Your task to perform on an android device: manage bookmarks in the chrome app Image 0: 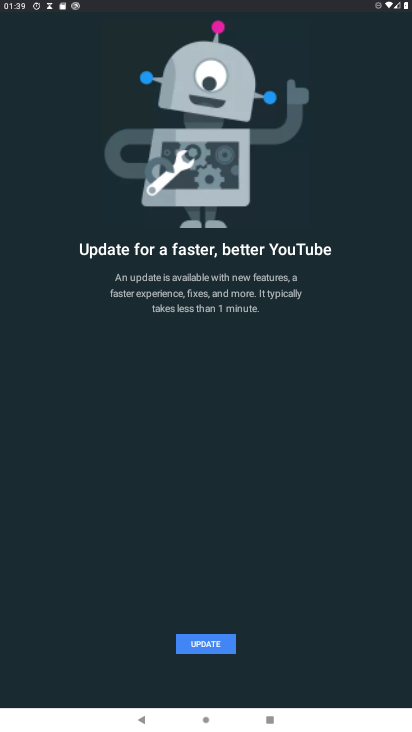
Step 0: press home button
Your task to perform on an android device: manage bookmarks in the chrome app Image 1: 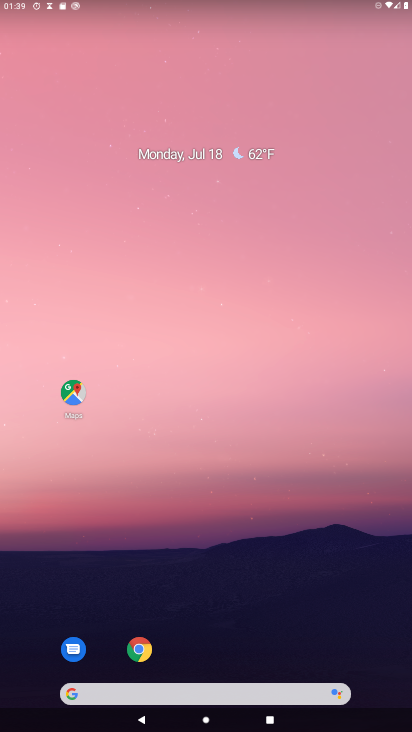
Step 1: click (146, 646)
Your task to perform on an android device: manage bookmarks in the chrome app Image 2: 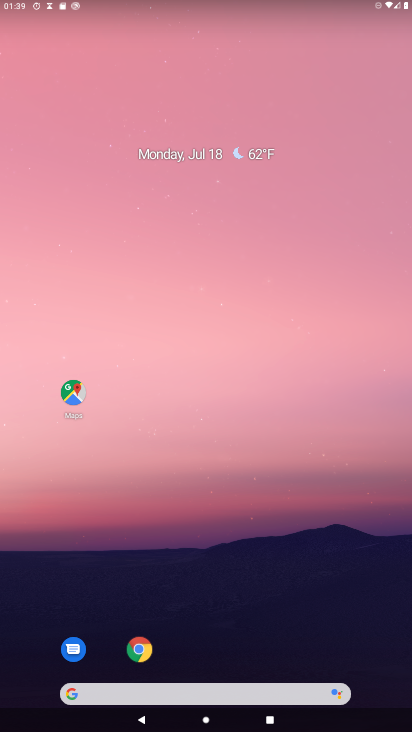
Step 2: click (146, 646)
Your task to perform on an android device: manage bookmarks in the chrome app Image 3: 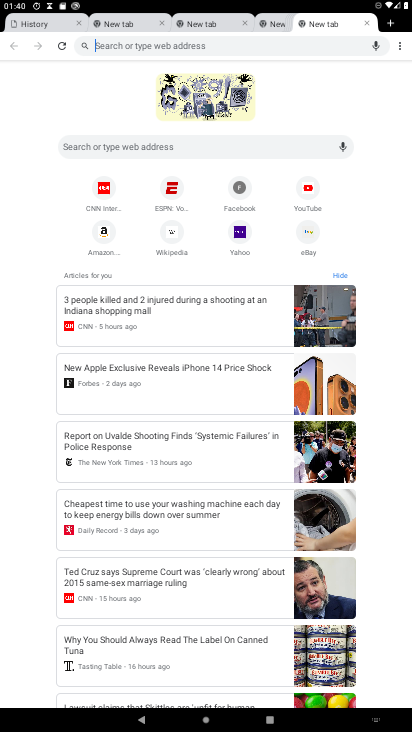
Step 3: click (400, 40)
Your task to perform on an android device: manage bookmarks in the chrome app Image 4: 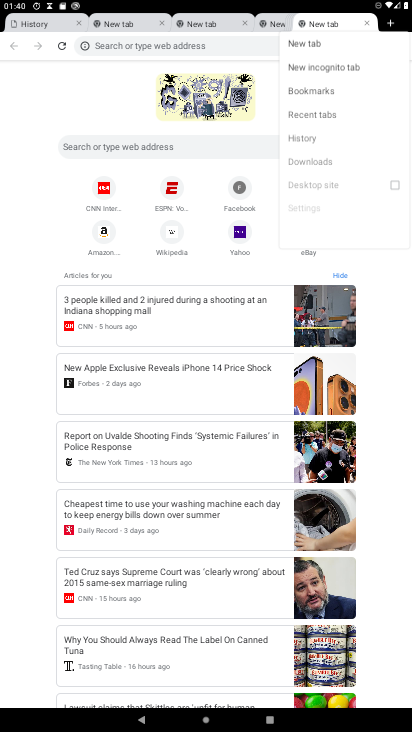
Step 4: click (398, 48)
Your task to perform on an android device: manage bookmarks in the chrome app Image 5: 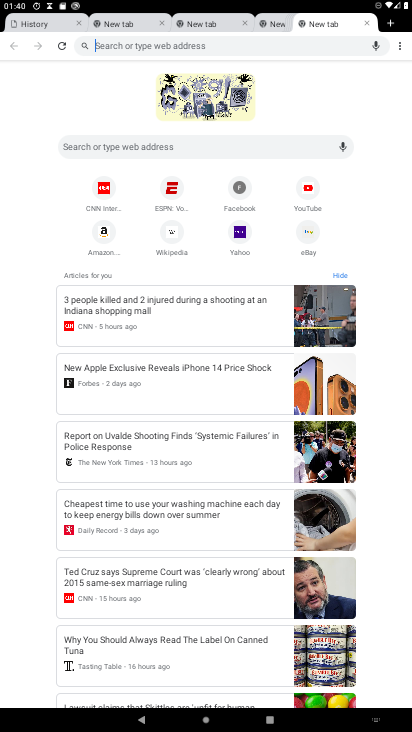
Step 5: click (396, 43)
Your task to perform on an android device: manage bookmarks in the chrome app Image 6: 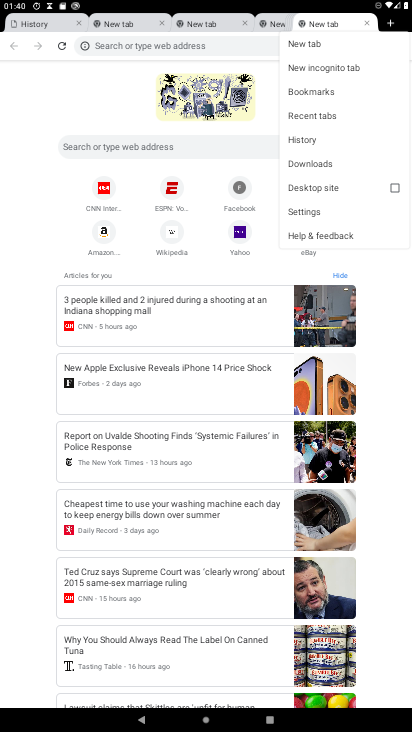
Step 6: click (329, 91)
Your task to perform on an android device: manage bookmarks in the chrome app Image 7: 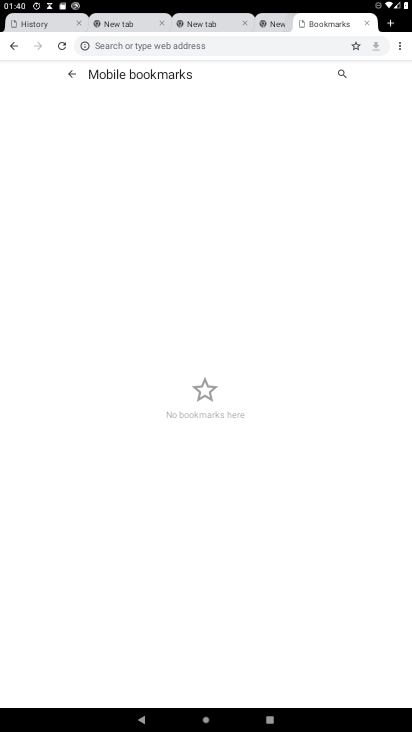
Step 7: task complete